Your task to perform on an android device: make emails show in primary in the gmail app Image 0: 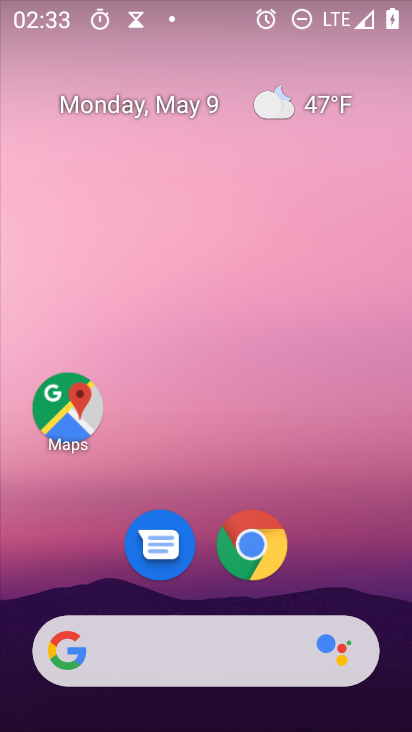
Step 0: drag from (268, 609) to (271, 13)
Your task to perform on an android device: make emails show in primary in the gmail app Image 1: 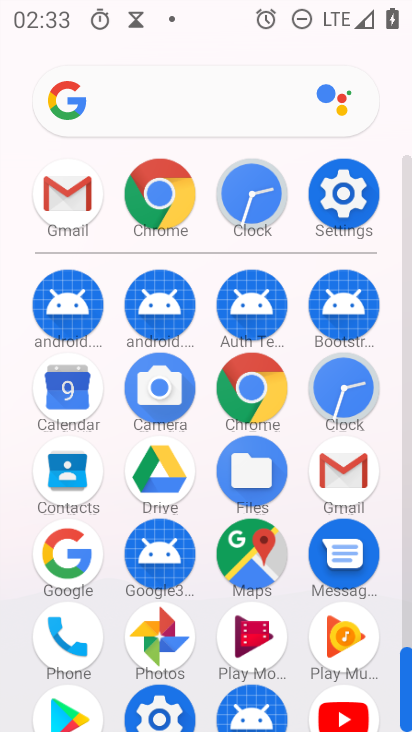
Step 1: click (358, 465)
Your task to perform on an android device: make emails show in primary in the gmail app Image 2: 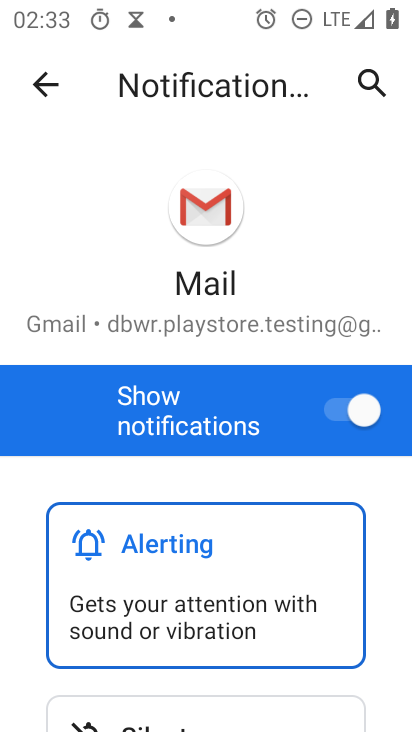
Step 2: press back button
Your task to perform on an android device: make emails show in primary in the gmail app Image 3: 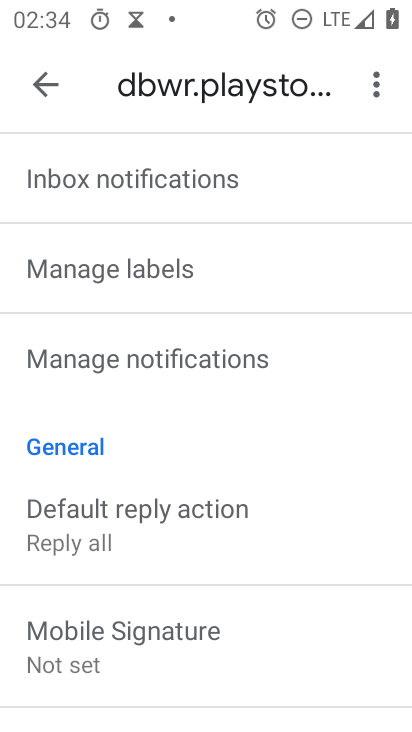
Step 3: drag from (264, 164) to (283, 712)
Your task to perform on an android device: make emails show in primary in the gmail app Image 4: 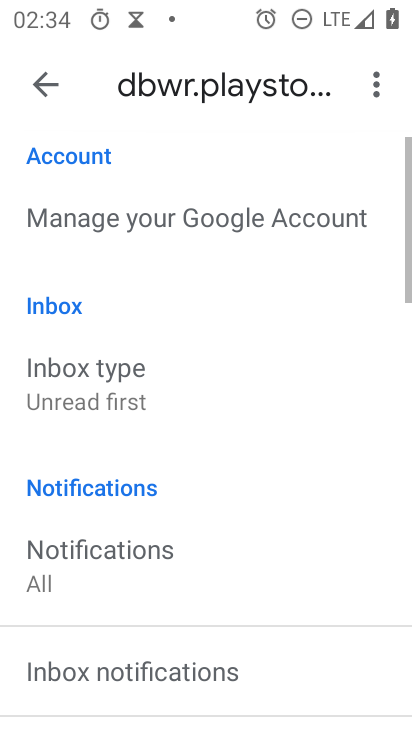
Step 4: drag from (248, 247) to (250, 682)
Your task to perform on an android device: make emails show in primary in the gmail app Image 5: 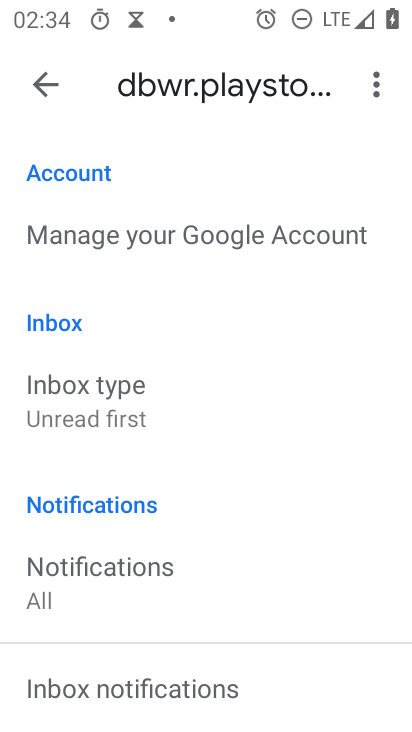
Step 5: drag from (205, 252) to (218, 608)
Your task to perform on an android device: make emails show in primary in the gmail app Image 6: 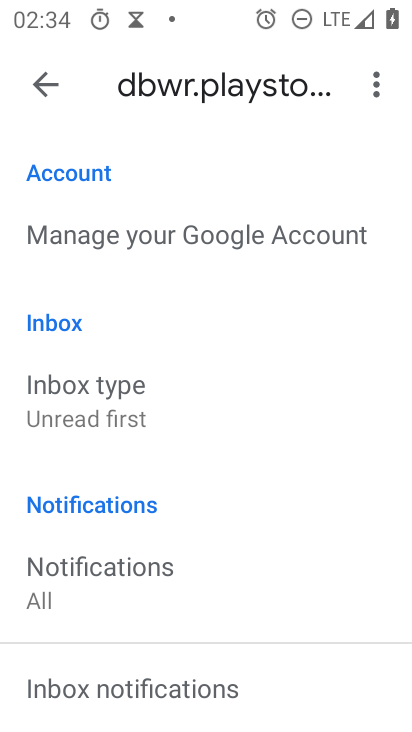
Step 6: click (106, 410)
Your task to perform on an android device: make emails show in primary in the gmail app Image 7: 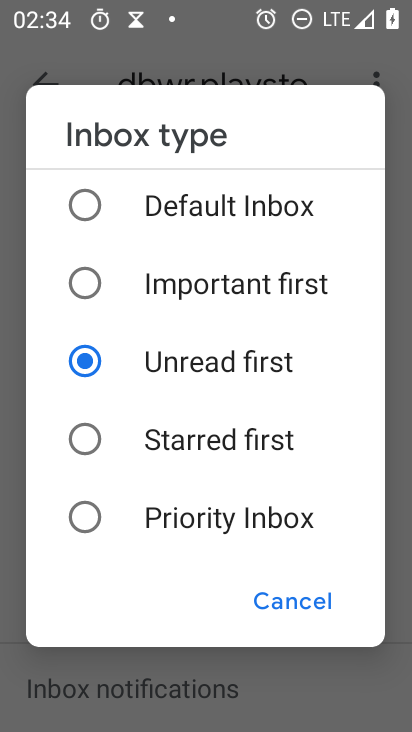
Step 7: click (89, 203)
Your task to perform on an android device: make emails show in primary in the gmail app Image 8: 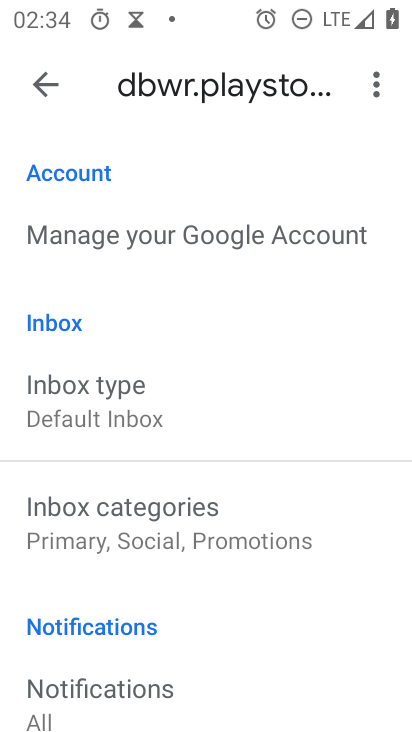
Step 8: task complete